Your task to perform on an android device: Open privacy settings Image 0: 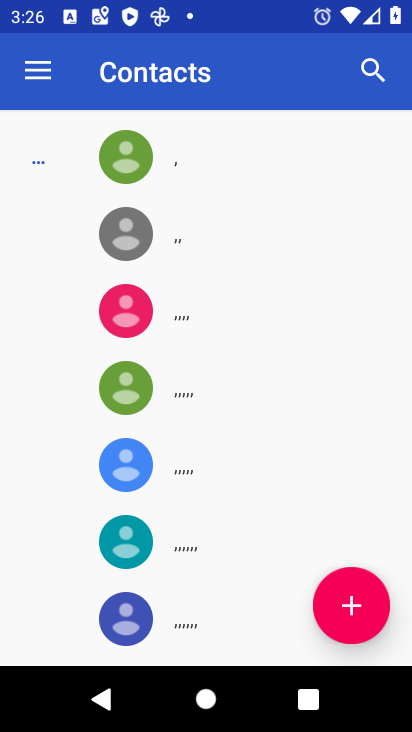
Step 0: press home button
Your task to perform on an android device: Open privacy settings Image 1: 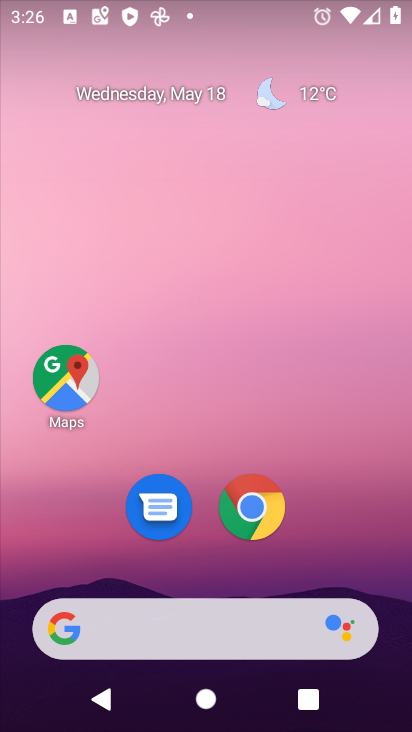
Step 1: drag from (399, 616) to (312, 197)
Your task to perform on an android device: Open privacy settings Image 2: 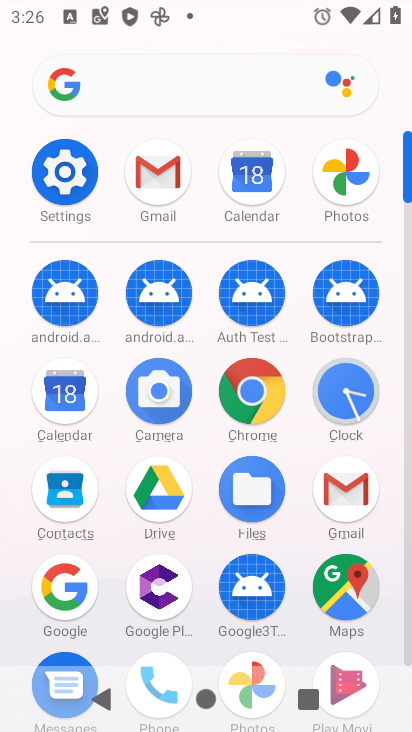
Step 2: click (405, 643)
Your task to perform on an android device: Open privacy settings Image 3: 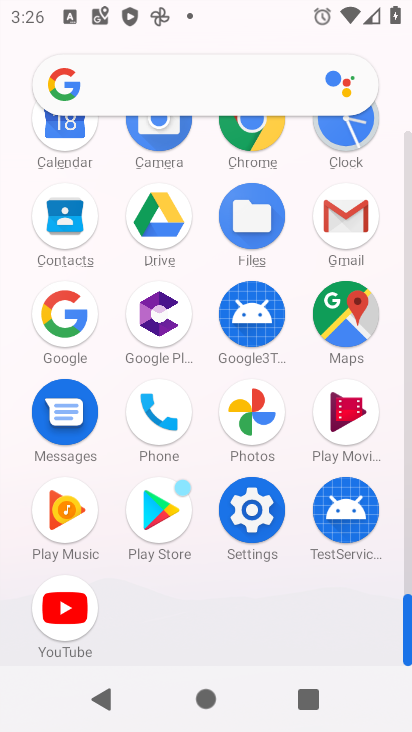
Step 3: click (250, 509)
Your task to perform on an android device: Open privacy settings Image 4: 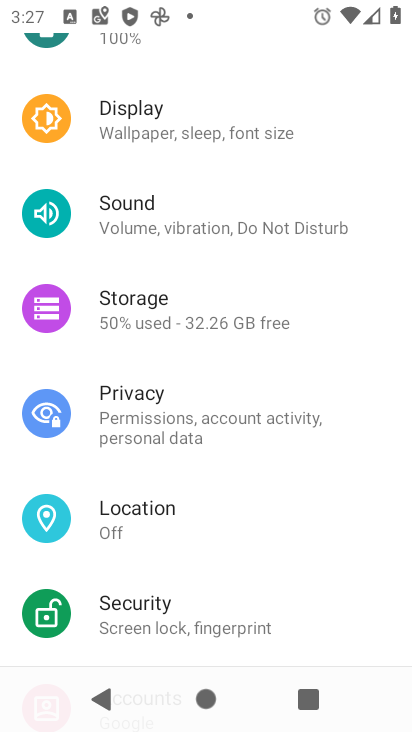
Step 4: click (144, 405)
Your task to perform on an android device: Open privacy settings Image 5: 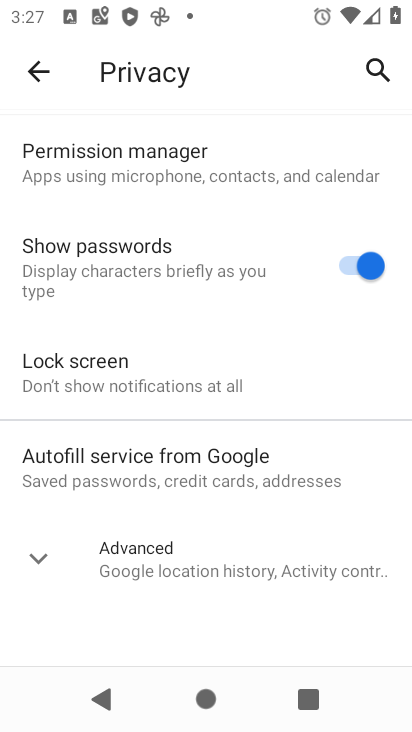
Step 5: click (38, 554)
Your task to perform on an android device: Open privacy settings Image 6: 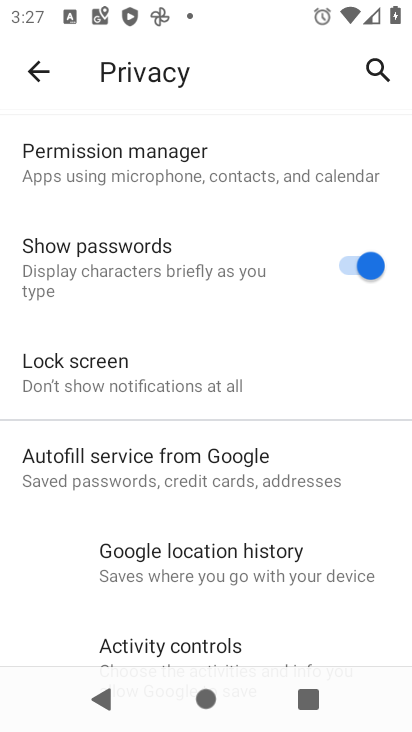
Step 6: task complete